Your task to perform on an android device: Open Amazon Image 0: 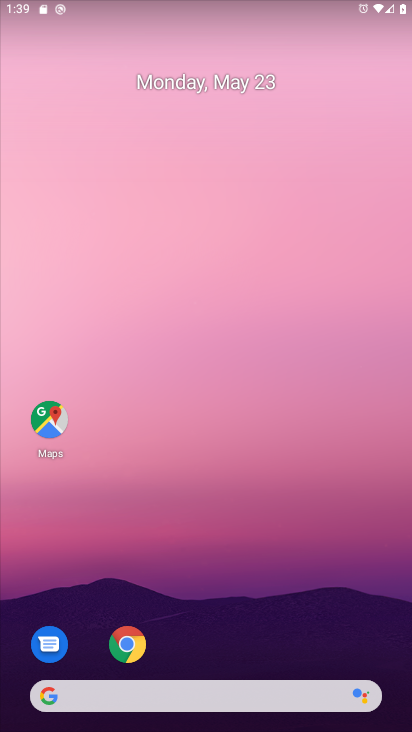
Step 0: click (102, 663)
Your task to perform on an android device: Open Amazon Image 1: 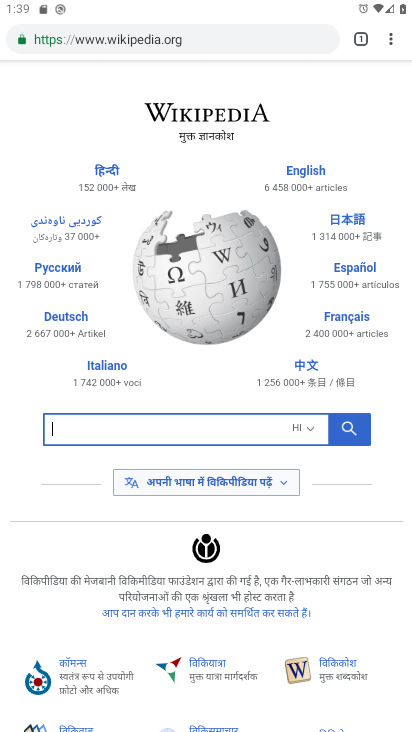
Step 1: click (129, 655)
Your task to perform on an android device: Open Amazon Image 2: 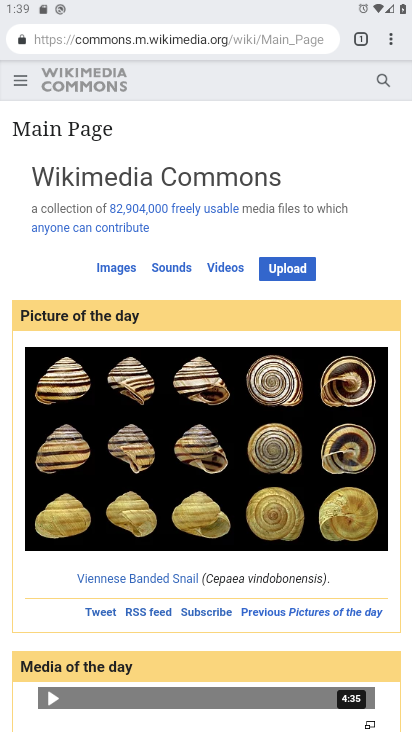
Step 2: click (186, 40)
Your task to perform on an android device: Open Amazon Image 3: 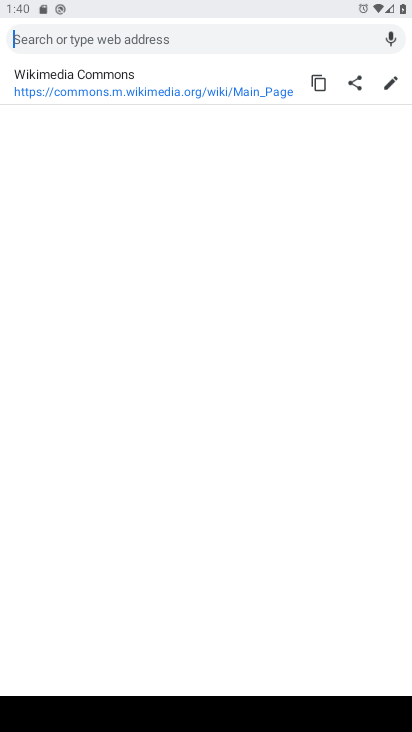
Step 3: type "www.amazon.com"
Your task to perform on an android device: Open Amazon Image 4: 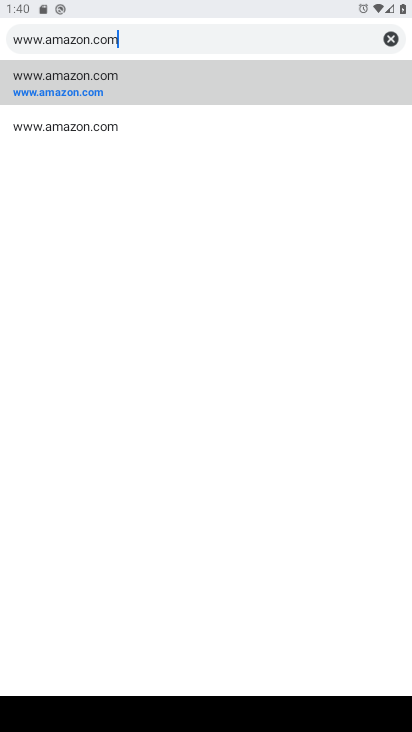
Step 4: click (97, 81)
Your task to perform on an android device: Open Amazon Image 5: 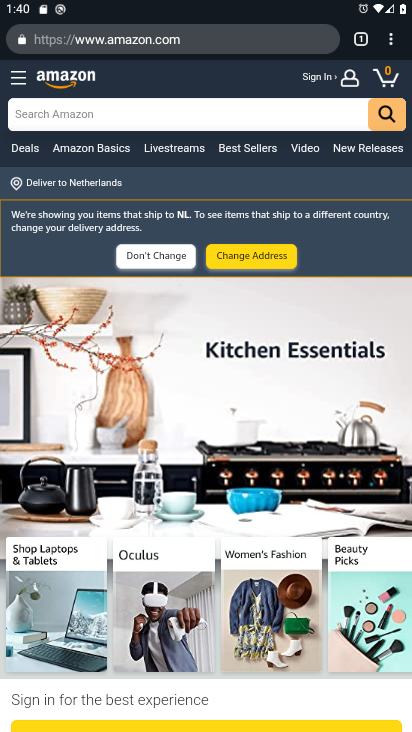
Step 5: task complete